Your task to perform on an android device: Do I have any events tomorrow? Image 0: 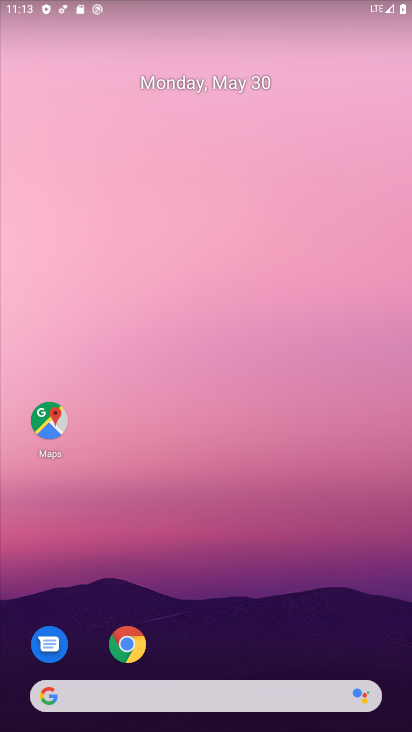
Step 0: drag from (276, 617) to (278, 50)
Your task to perform on an android device: Do I have any events tomorrow? Image 1: 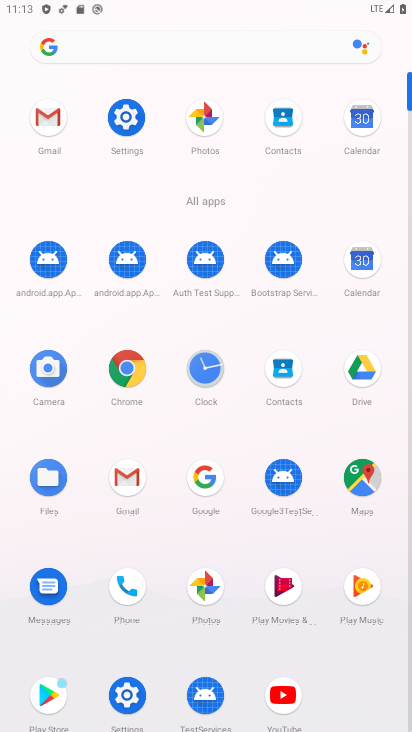
Step 1: click (362, 285)
Your task to perform on an android device: Do I have any events tomorrow? Image 2: 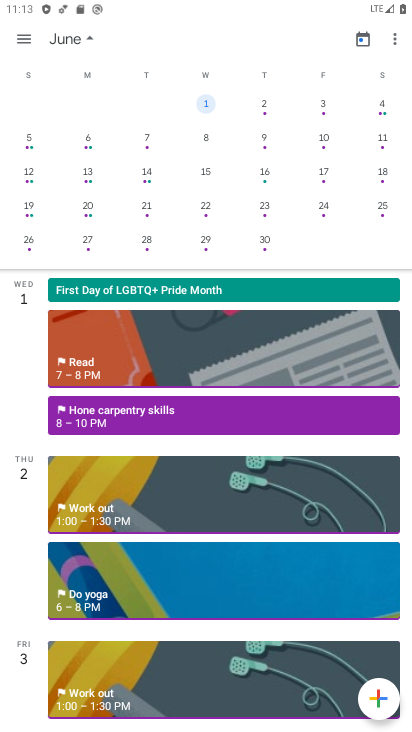
Step 2: drag from (100, 149) to (410, 185)
Your task to perform on an android device: Do I have any events tomorrow? Image 3: 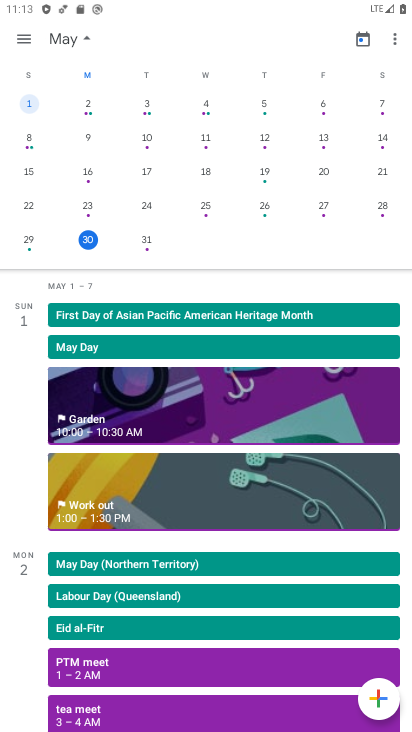
Step 3: click (161, 242)
Your task to perform on an android device: Do I have any events tomorrow? Image 4: 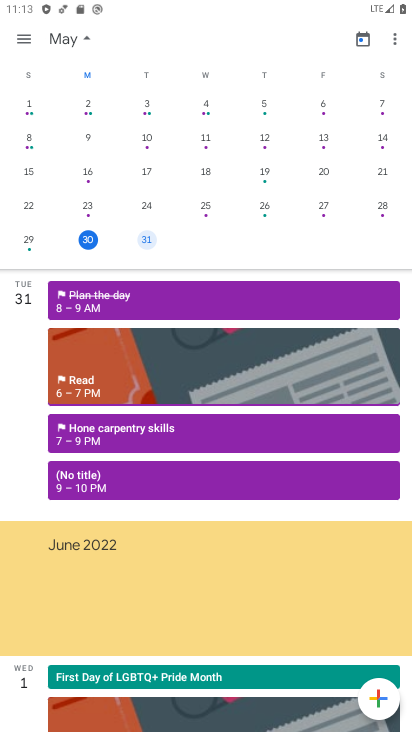
Step 4: click (90, 44)
Your task to perform on an android device: Do I have any events tomorrow? Image 5: 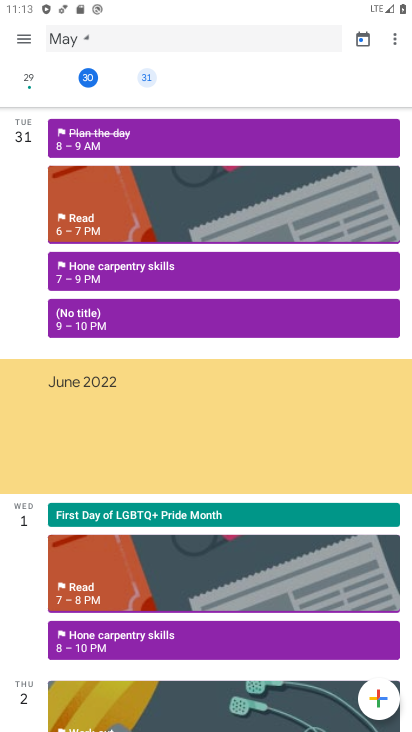
Step 5: click (90, 44)
Your task to perform on an android device: Do I have any events tomorrow? Image 6: 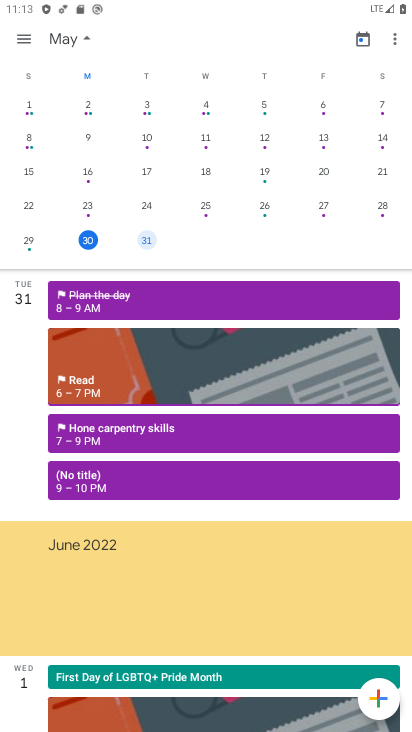
Step 6: drag from (385, 159) to (23, 235)
Your task to perform on an android device: Do I have any events tomorrow? Image 7: 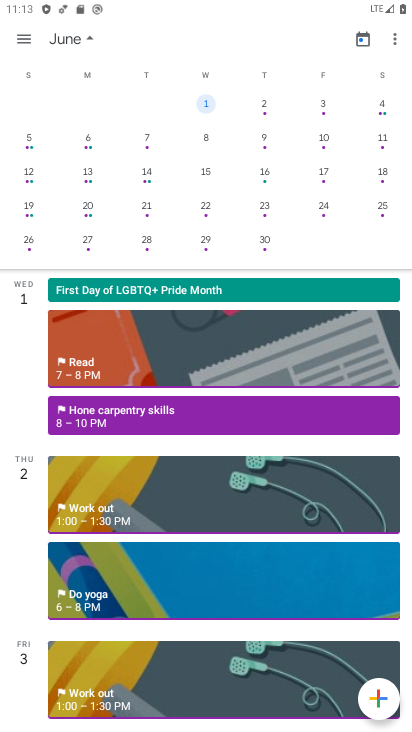
Step 7: click (211, 108)
Your task to perform on an android device: Do I have any events tomorrow? Image 8: 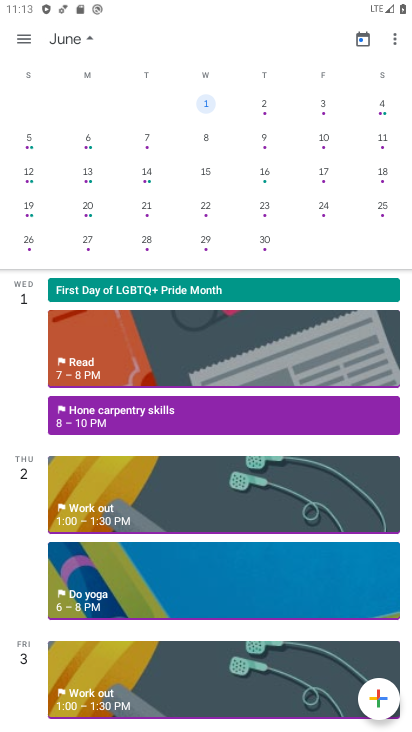
Step 8: click (211, 108)
Your task to perform on an android device: Do I have any events tomorrow? Image 9: 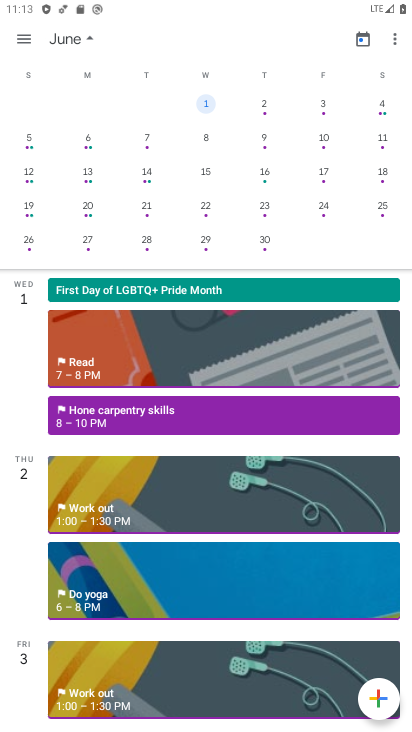
Step 9: click (80, 27)
Your task to perform on an android device: Do I have any events tomorrow? Image 10: 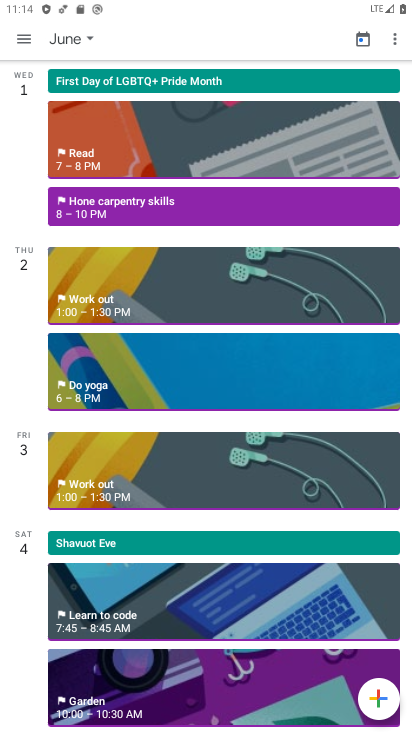
Step 10: task complete